Your task to perform on an android device: turn on notifications settings in the gmail app Image 0: 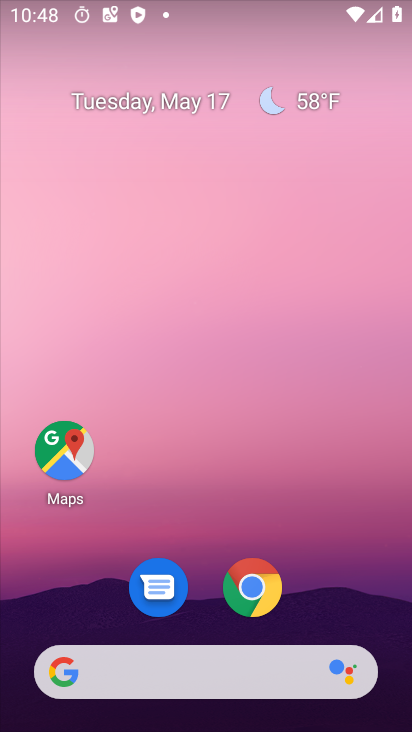
Step 0: drag from (343, 571) to (271, 112)
Your task to perform on an android device: turn on notifications settings in the gmail app Image 1: 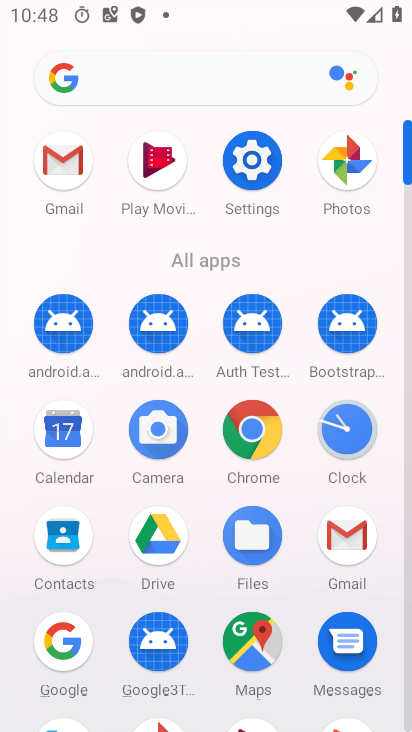
Step 1: click (62, 160)
Your task to perform on an android device: turn on notifications settings in the gmail app Image 2: 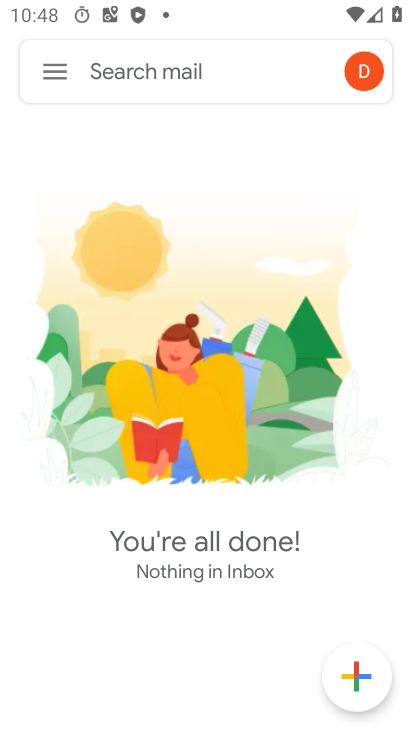
Step 2: click (58, 68)
Your task to perform on an android device: turn on notifications settings in the gmail app Image 3: 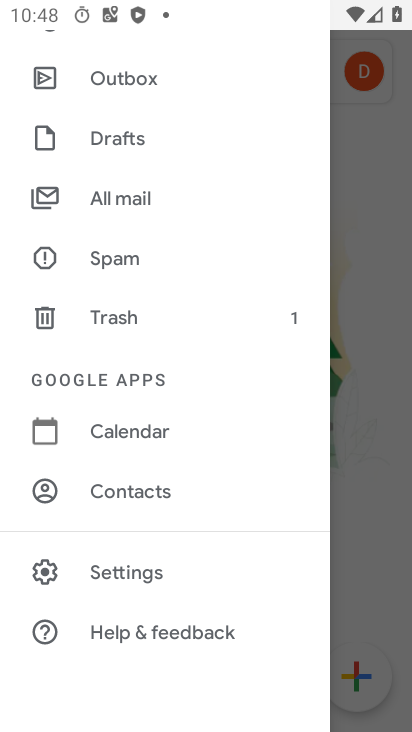
Step 3: click (129, 568)
Your task to perform on an android device: turn on notifications settings in the gmail app Image 4: 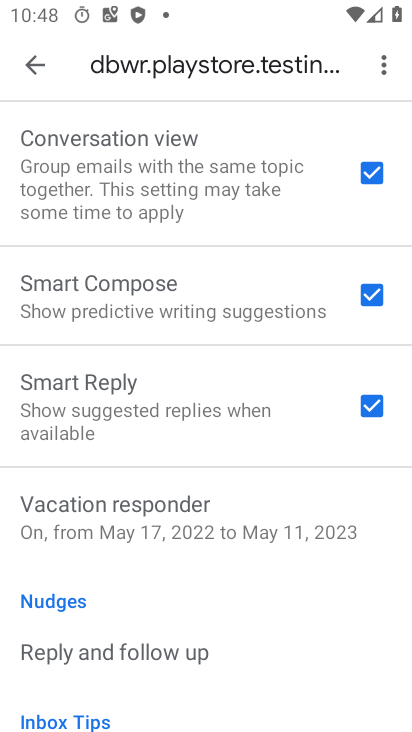
Step 4: drag from (209, 233) to (221, 365)
Your task to perform on an android device: turn on notifications settings in the gmail app Image 5: 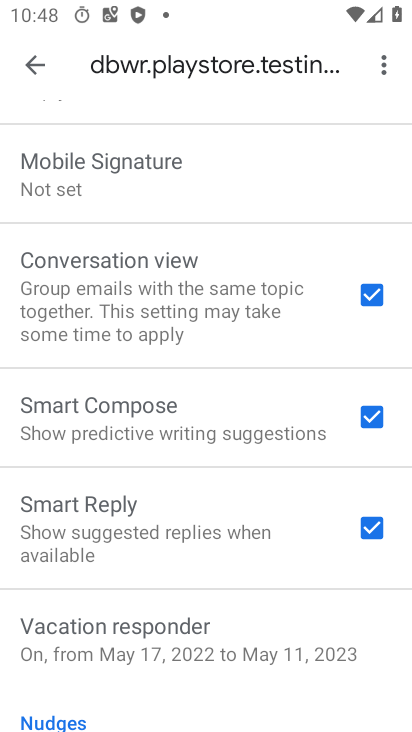
Step 5: drag from (209, 199) to (194, 372)
Your task to perform on an android device: turn on notifications settings in the gmail app Image 6: 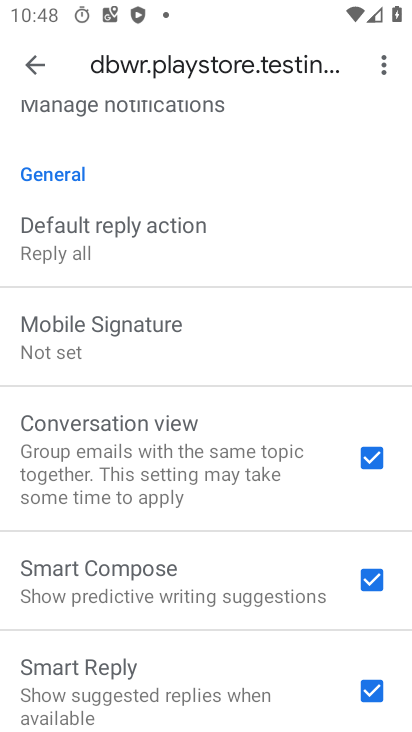
Step 6: drag from (178, 177) to (205, 326)
Your task to perform on an android device: turn on notifications settings in the gmail app Image 7: 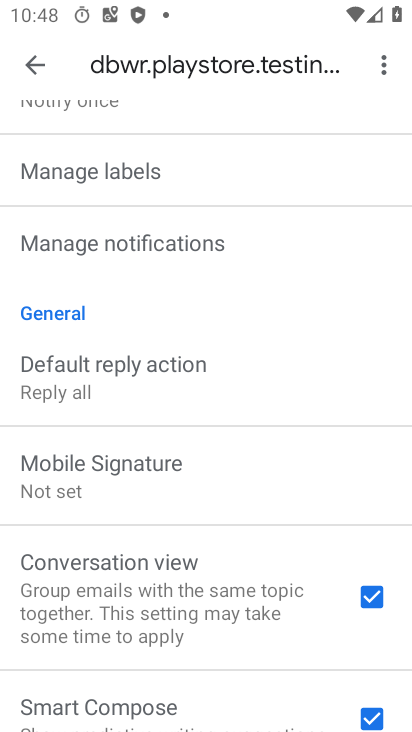
Step 7: click (142, 245)
Your task to perform on an android device: turn on notifications settings in the gmail app Image 8: 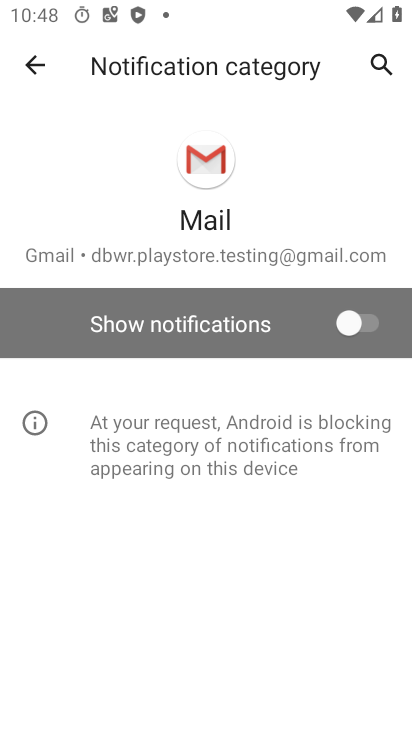
Step 8: click (350, 327)
Your task to perform on an android device: turn on notifications settings in the gmail app Image 9: 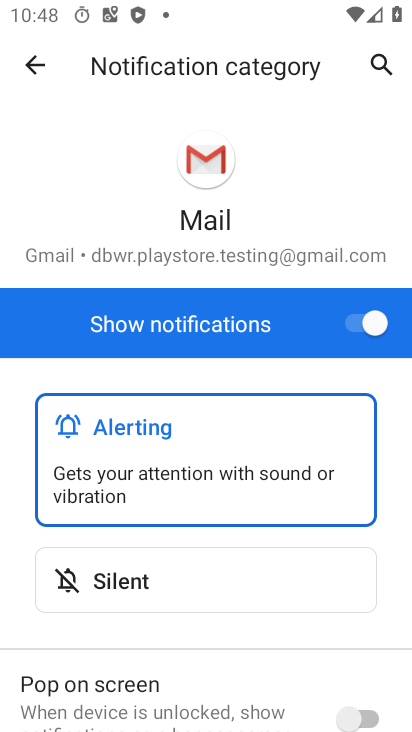
Step 9: task complete